Your task to perform on an android device: Toggle the flashlight Image 0: 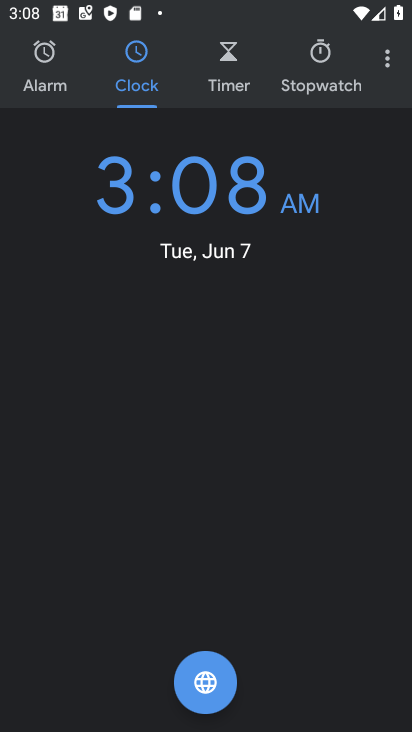
Step 0: press home button
Your task to perform on an android device: Toggle the flashlight Image 1: 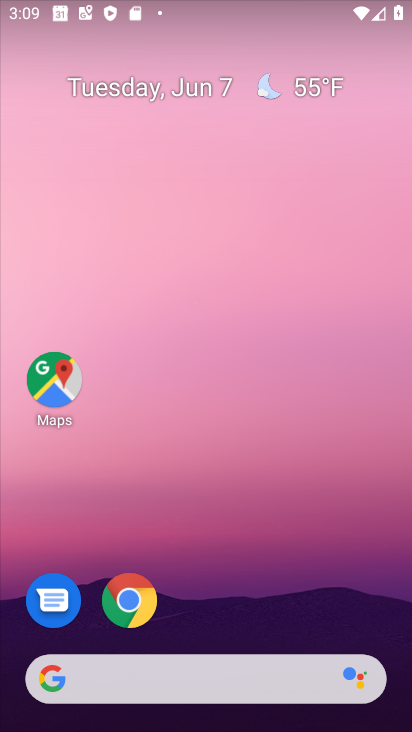
Step 1: task complete